Your task to perform on an android device: Show me recent news Image 0: 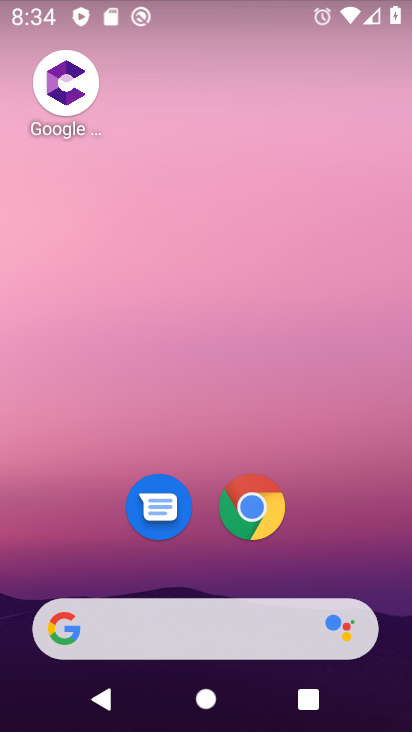
Step 0: click (210, 615)
Your task to perform on an android device: Show me recent news Image 1: 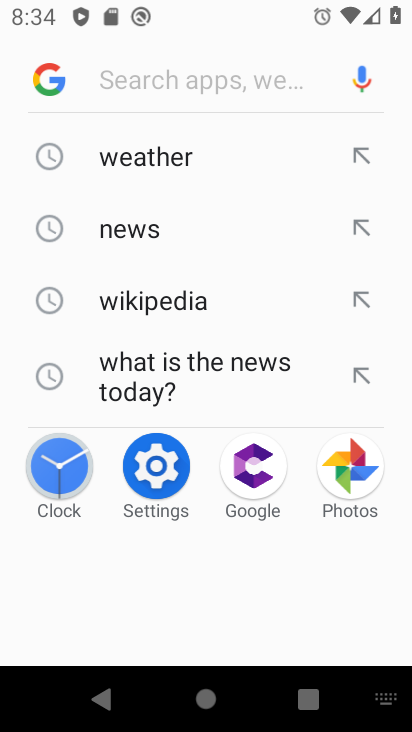
Step 1: type "recent news"
Your task to perform on an android device: Show me recent news Image 2: 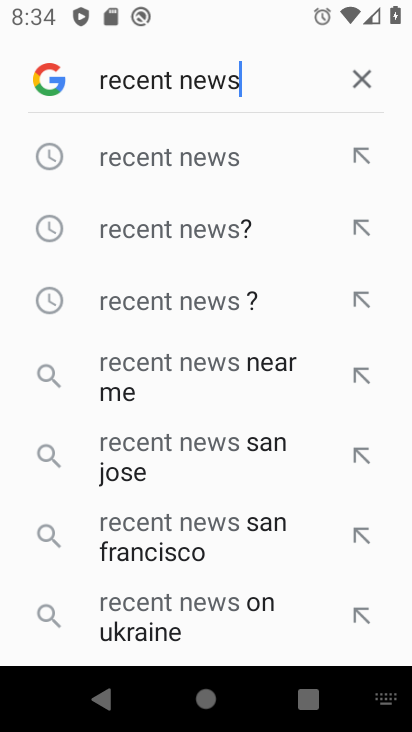
Step 2: click (218, 169)
Your task to perform on an android device: Show me recent news Image 3: 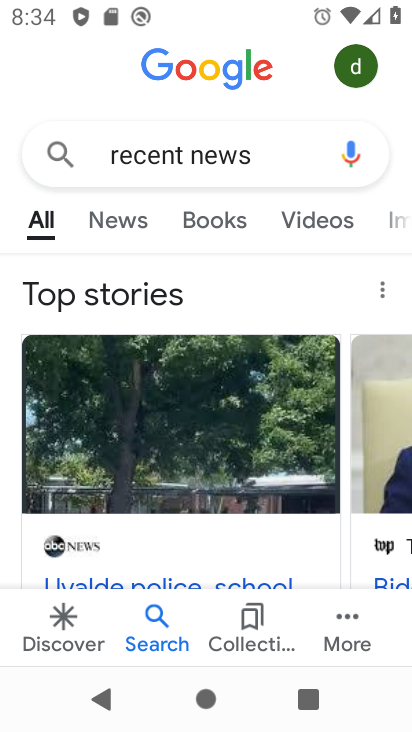
Step 3: task complete